Your task to perform on an android device: stop showing notifications on the lock screen Image 0: 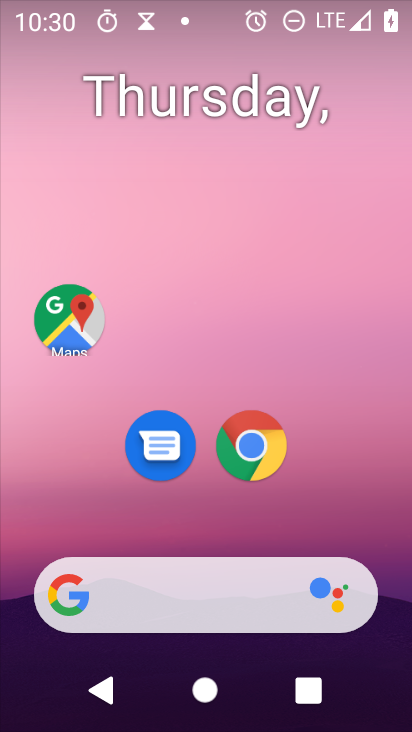
Step 0: drag from (209, 489) to (339, 80)
Your task to perform on an android device: stop showing notifications on the lock screen Image 1: 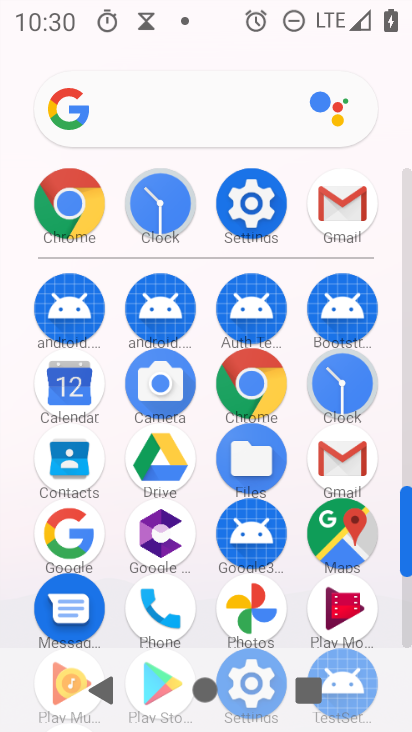
Step 1: click (251, 216)
Your task to perform on an android device: stop showing notifications on the lock screen Image 2: 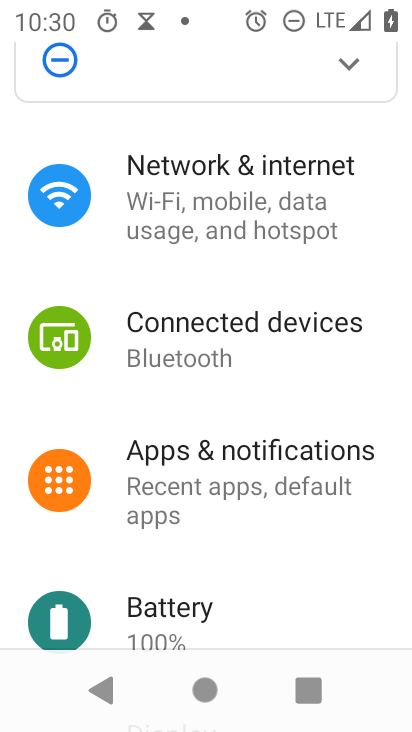
Step 2: click (222, 466)
Your task to perform on an android device: stop showing notifications on the lock screen Image 3: 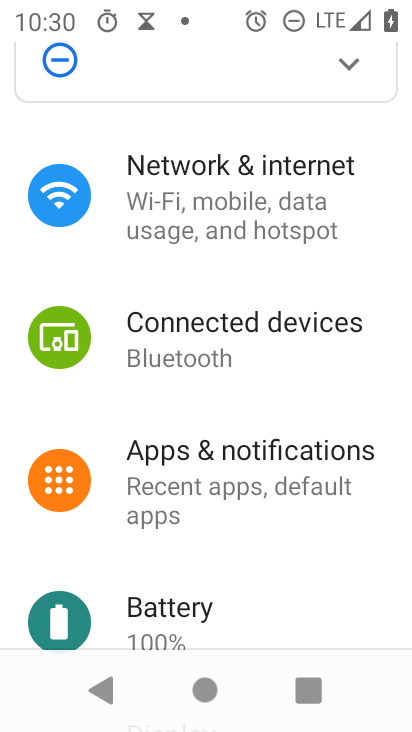
Step 3: click (222, 466)
Your task to perform on an android device: stop showing notifications on the lock screen Image 4: 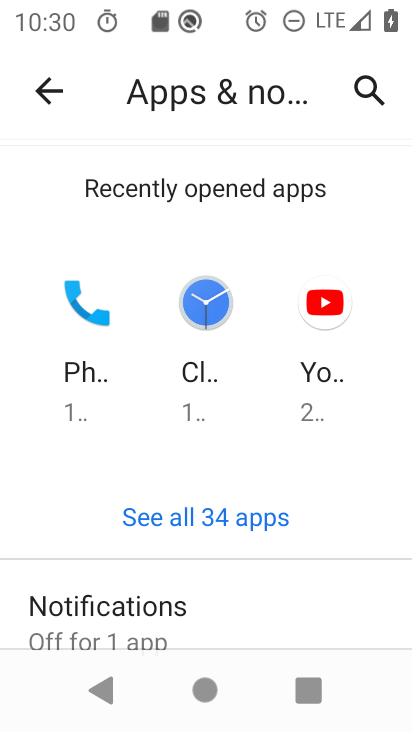
Step 4: drag from (225, 580) to (330, 201)
Your task to perform on an android device: stop showing notifications on the lock screen Image 5: 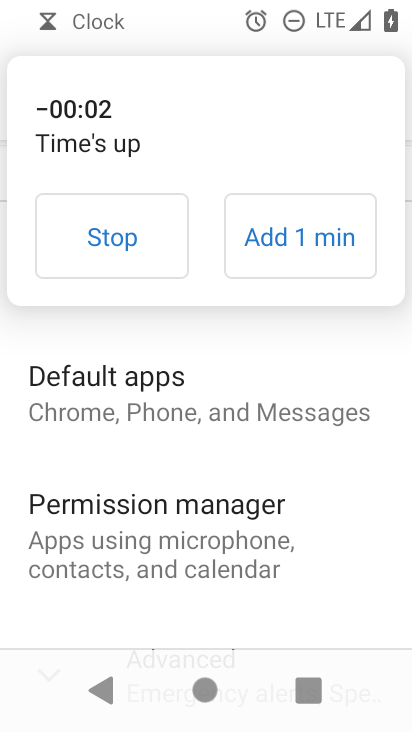
Step 5: click (125, 206)
Your task to perform on an android device: stop showing notifications on the lock screen Image 6: 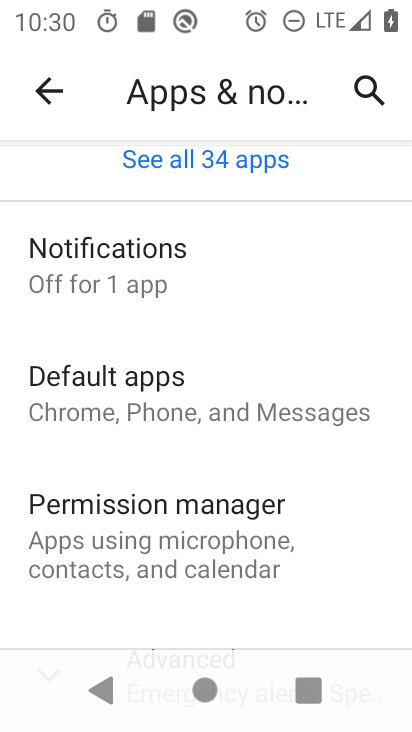
Step 6: click (163, 271)
Your task to perform on an android device: stop showing notifications on the lock screen Image 7: 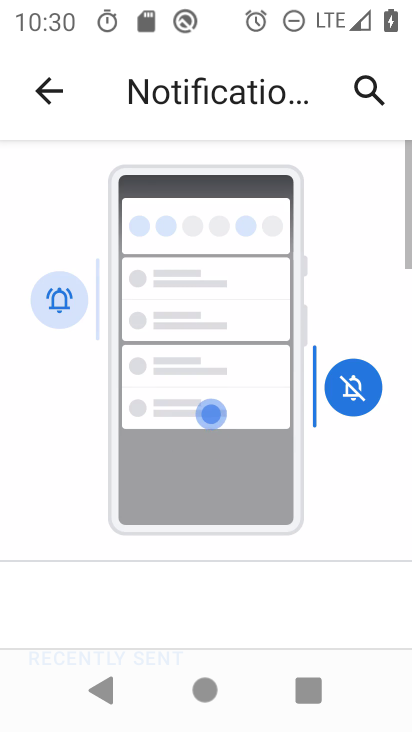
Step 7: drag from (135, 420) to (286, 68)
Your task to perform on an android device: stop showing notifications on the lock screen Image 8: 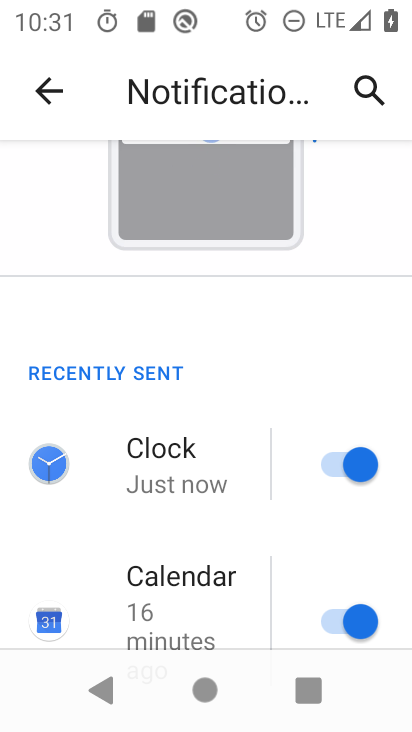
Step 8: drag from (223, 602) to (267, 292)
Your task to perform on an android device: stop showing notifications on the lock screen Image 9: 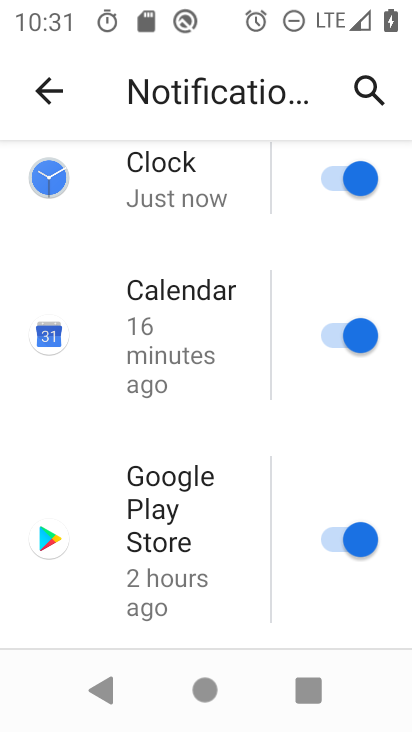
Step 9: drag from (195, 554) to (306, 154)
Your task to perform on an android device: stop showing notifications on the lock screen Image 10: 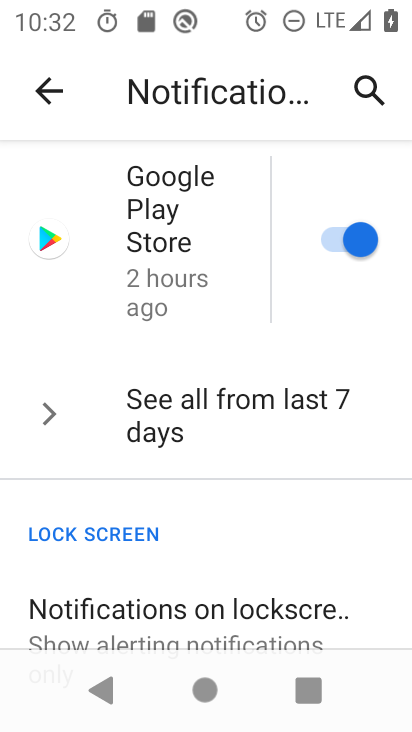
Step 10: click (160, 597)
Your task to perform on an android device: stop showing notifications on the lock screen Image 11: 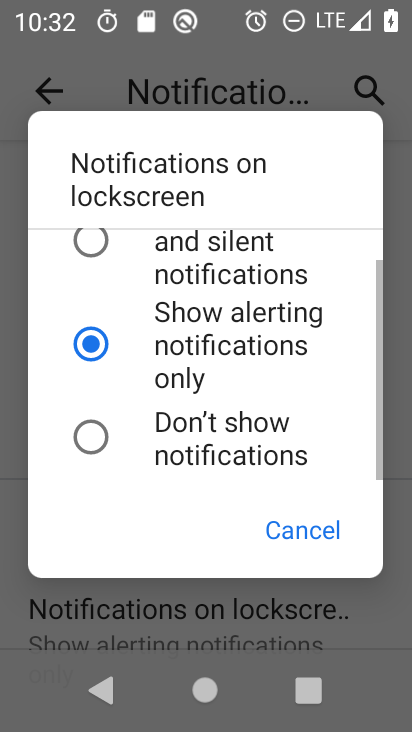
Step 11: click (171, 429)
Your task to perform on an android device: stop showing notifications on the lock screen Image 12: 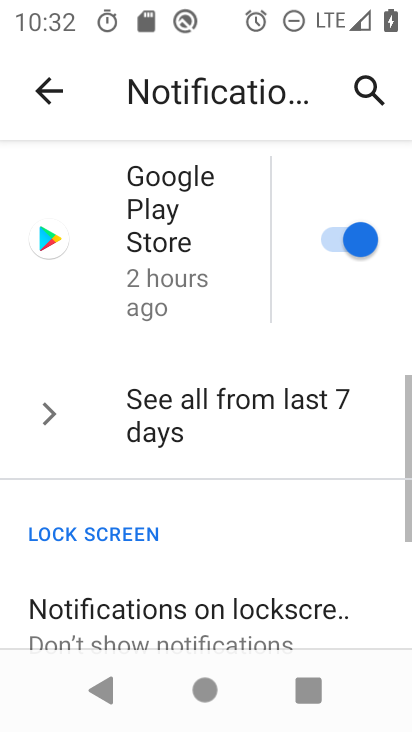
Step 12: task complete